Your task to perform on an android device: Open my contact list Image 0: 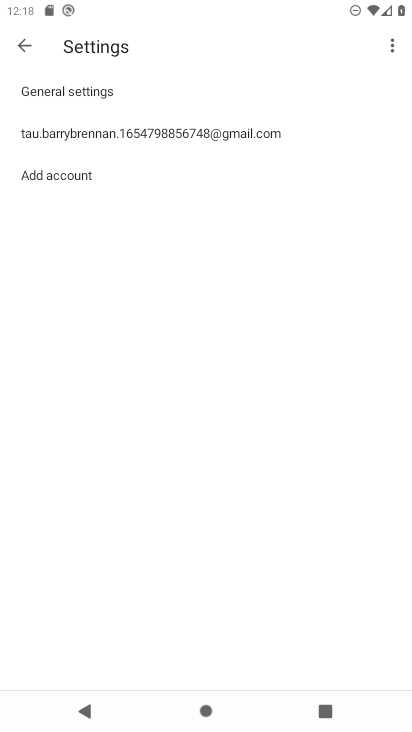
Step 0: press home button
Your task to perform on an android device: Open my contact list Image 1: 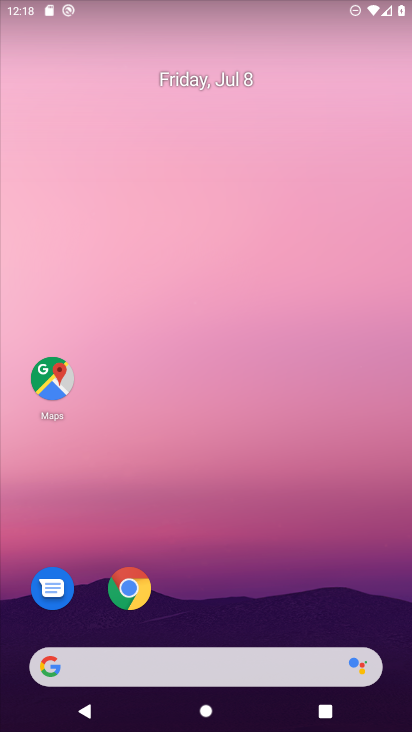
Step 1: drag from (238, 607) to (308, 8)
Your task to perform on an android device: Open my contact list Image 2: 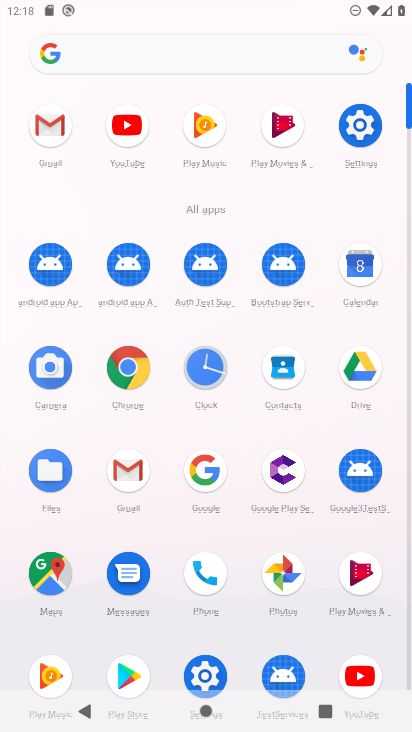
Step 2: click (290, 364)
Your task to perform on an android device: Open my contact list Image 3: 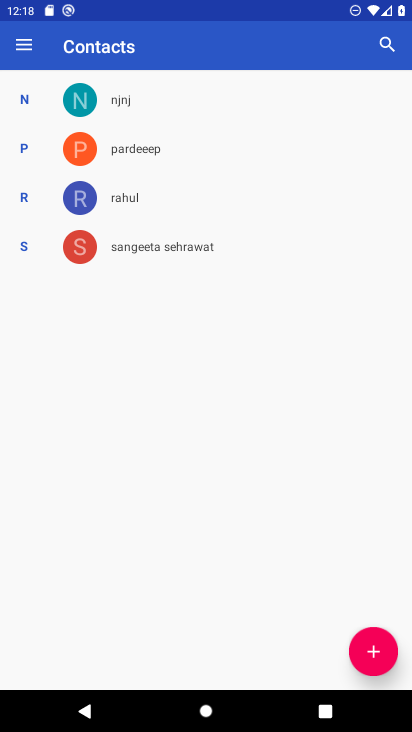
Step 3: task complete